Your task to perform on an android device: Do I have any events this weekend? Image 0: 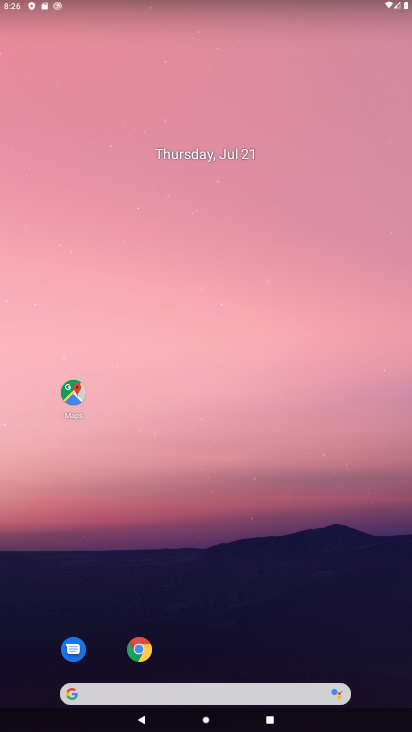
Step 0: click (245, 156)
Your task to perform on an android device: Do I have any events this weekend? Image 1: 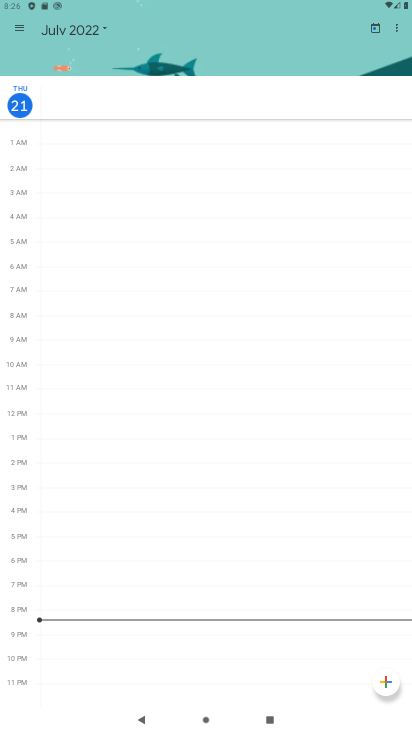
Step 1: click (73, 17)
Your task to perform on an android device: Do I have any events this weekend? Image 2: 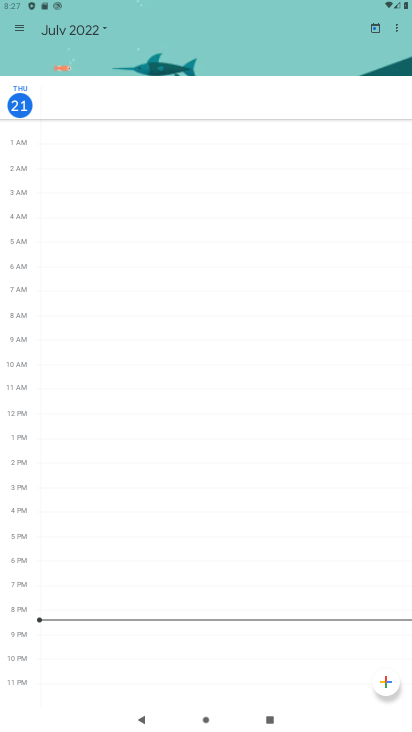
Step 2: click (83, 25)
Your task to perform on an android device: Do I have any events this weekend? Image 3: 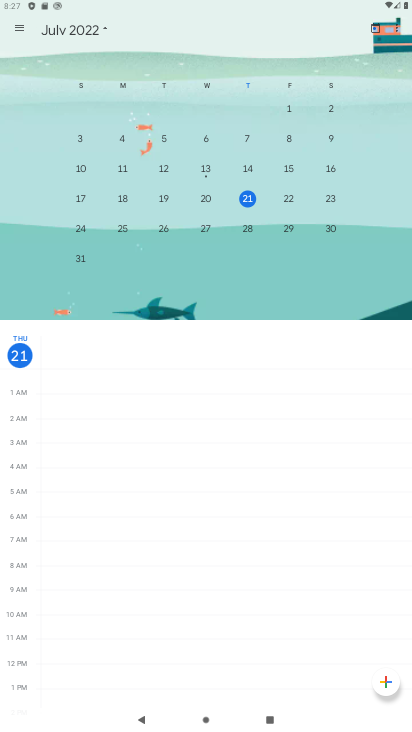
Step 3: click (339, 200)
Your task to perform on an android device: Do I have any events this weekend? Image 4: 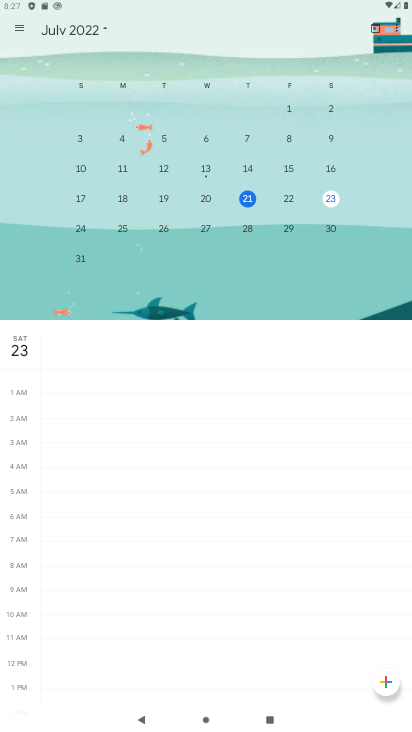
Step 4: task complete